Your task to perform on an android device: Open Google Chrome Image 0: 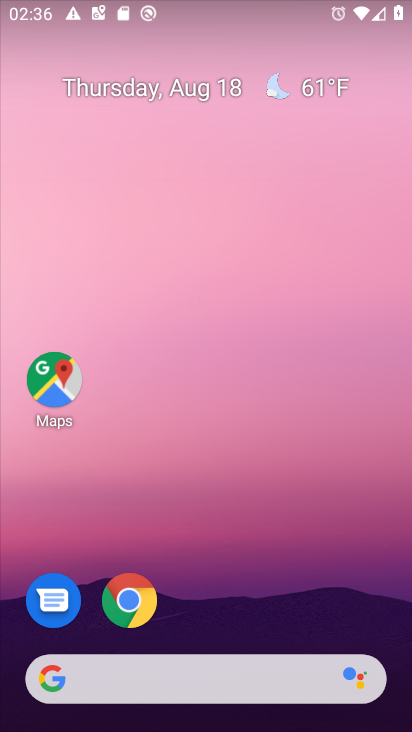
Step 0: press home button
Your task to perform on an android device: Open Google Chrome Image 1: 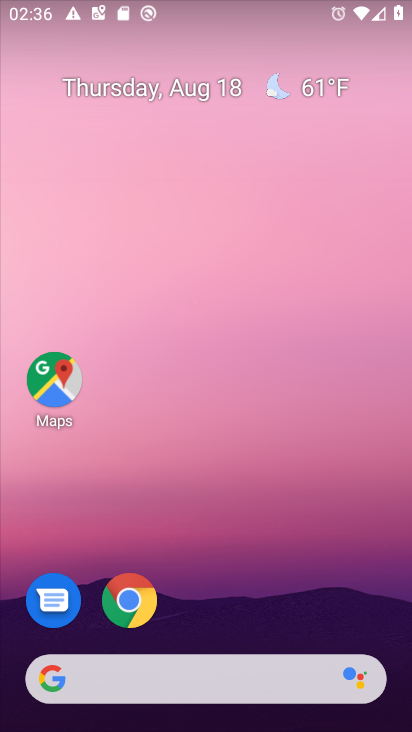
Step 1: click (116, 589)
Your task to perform on an android device: Open Google Chrome Image 2: 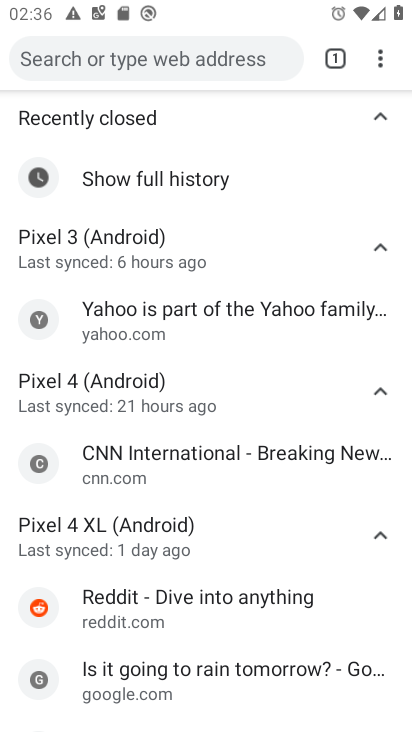
Step 2: task complete